Your task to perform on an android device: When is my next appointment? Image 0: 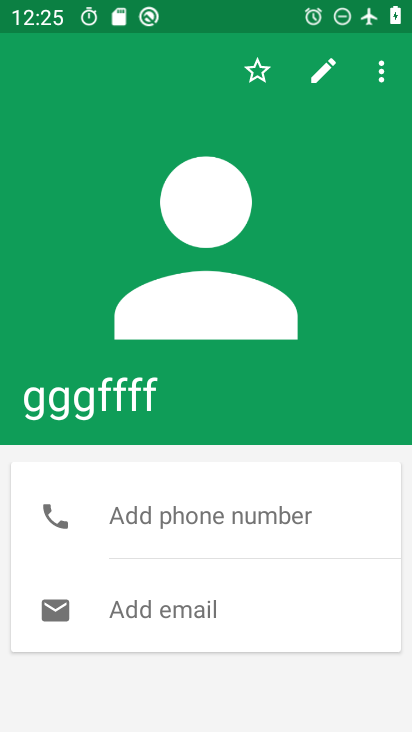
Step 0: press home button
Your task to perform on an android device: When is my next appointment? Image 1: 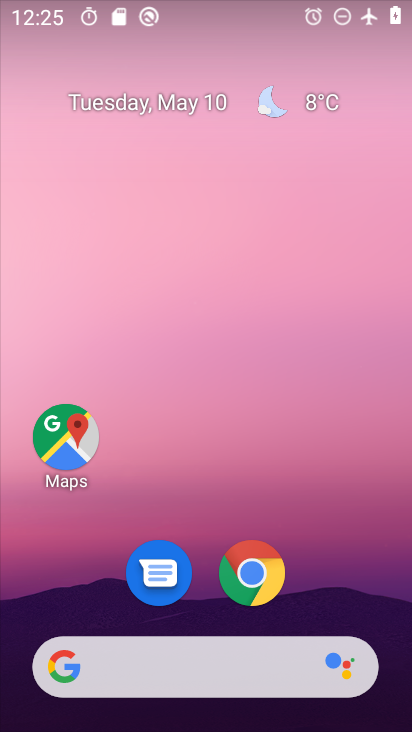
Step 1: drag from (346, 576) to (295, 144)
Your task to perform on an android device: When is my next appointment? Image 2: 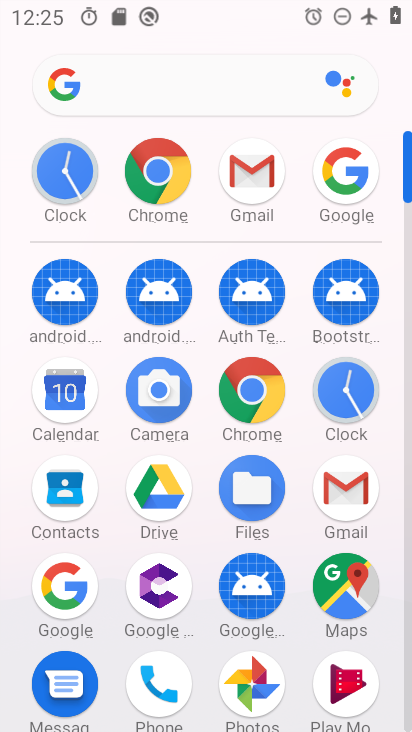
Step 2: click (90, 393)
Your task to perform on an android device: When is my next appointment? Image 3: 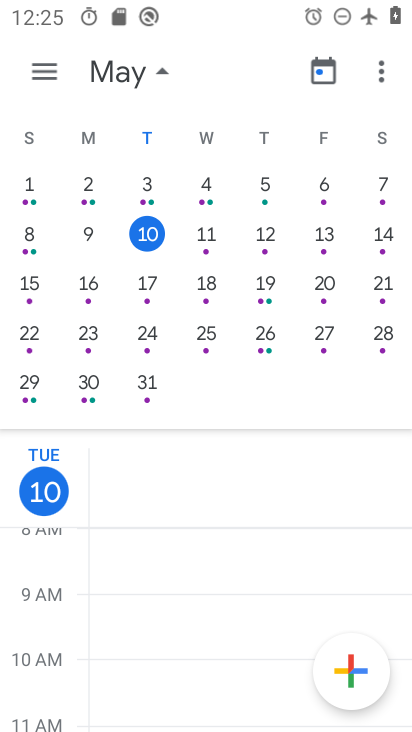
Step 3: task complete